Your task to perform on an android device: toggle data saver in the chrome app Image 0: 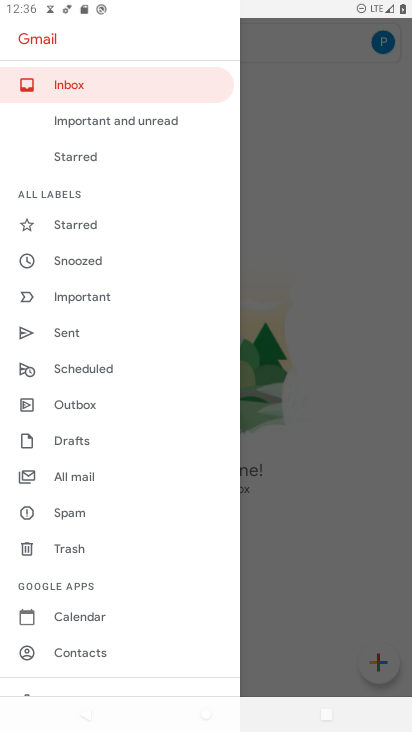
Step 0: press home button
Your task to perform on an android device: toggle data saver in the chrome app Image 1: 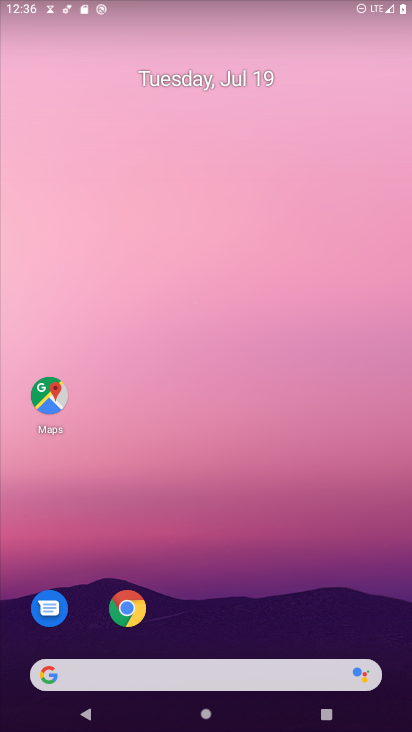
Step 1: drag from (157, 601) to (152, 242)
Your task to perform on an android device: toggle data saver in the chrome app Image 2: 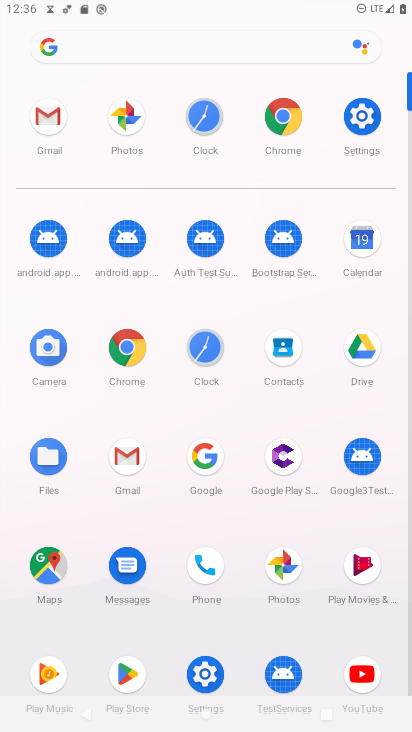
Step 2: click (130, 354)
Your task to perform on an android device: toggle data saver in the chrome app Image 3: 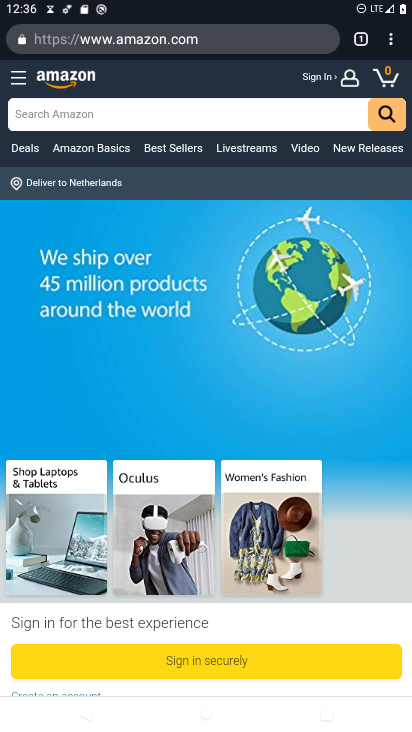
Step 3: drag from (390, 43) to (268, 434)
Your task to perform on an android device: toggle data saver in the chrome app Image 4: 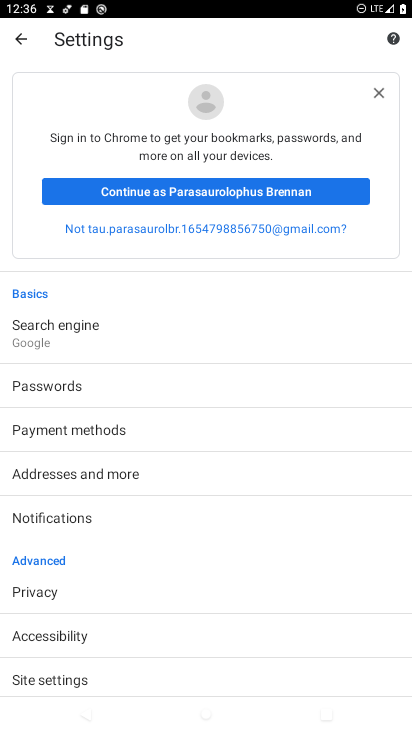
Step 4: drag from (158, 704) to (165, 375)
Your task to perform on an android device: toggle data saver in the chrome app Image 5: 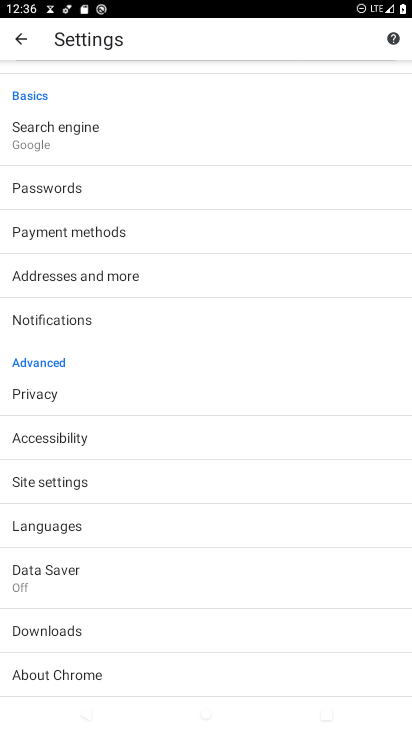
Step 5: click (110, 569)
Your task to perform on an android device: toggle data saver in the chrome app Image 6: 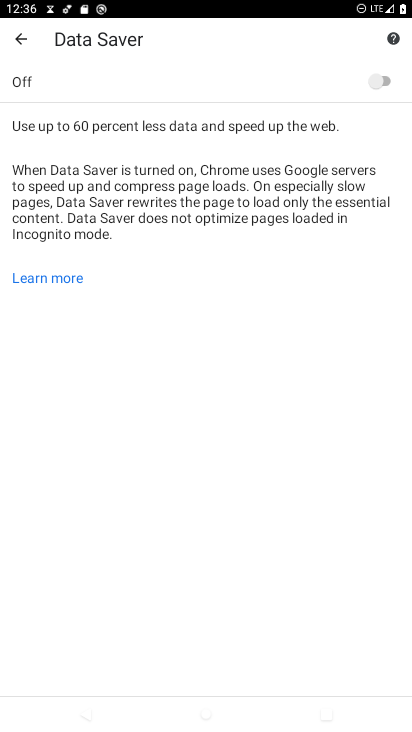
Step 6: click (382, 79)
Your task to perform on an android device: toggle data saver in the chrome app Image 7: 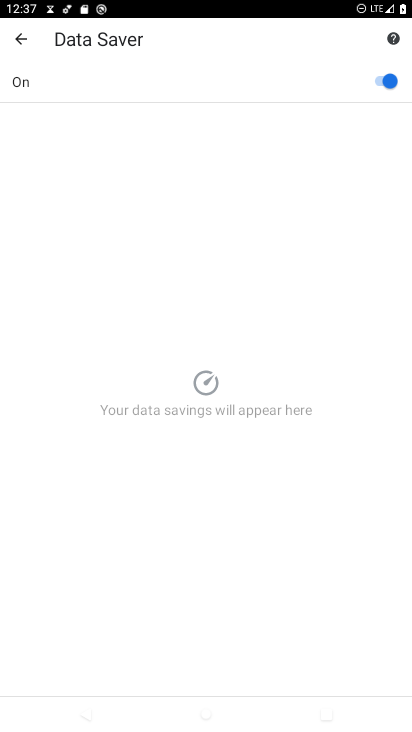
Step 7: task complete